Your task to perform on an android device: toggle translation in the chrome app Image 0: 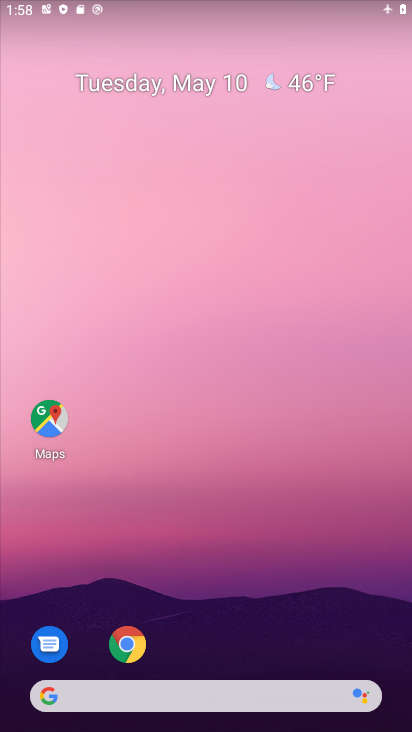
Step 0: drag from (237, 582) to (241, 58)
Your task to perform on an android device: toggle translation in the chrome app Image 1: 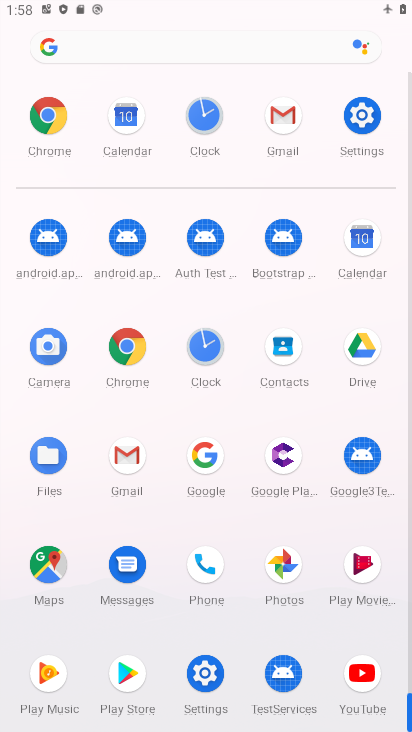
Step 1: click (132, 366)
Your task to perform on an android device: toggle translation in the chrome app Image 2: 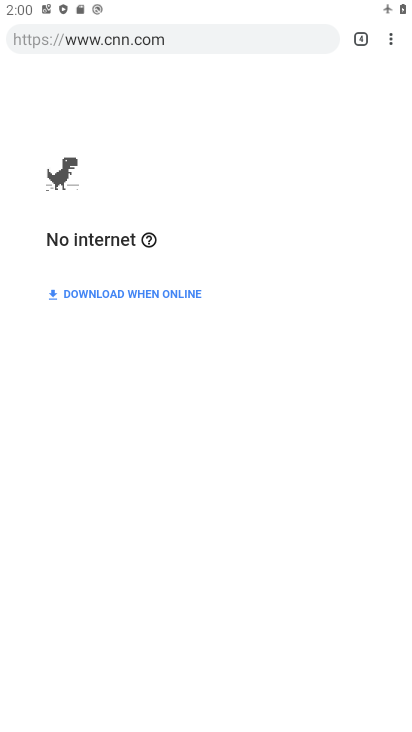
Step 2: click (389, 50)
Your task to perform on an android device: toggle translation in the chrome app Image 3: 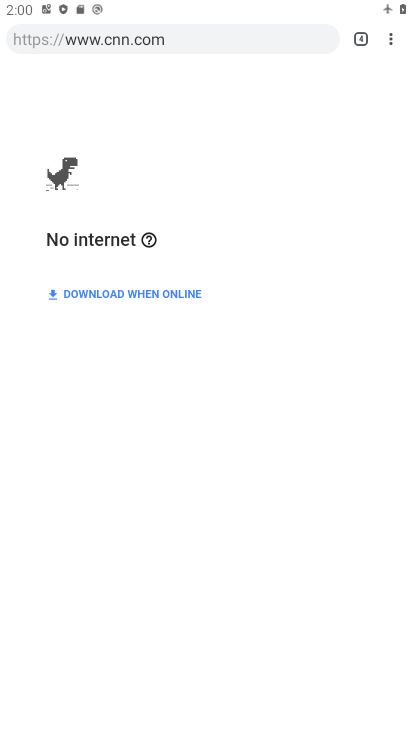
Step 3: click (391, 43)
Your task to perform on an android device: toggle translation in the chrome app Image 4: 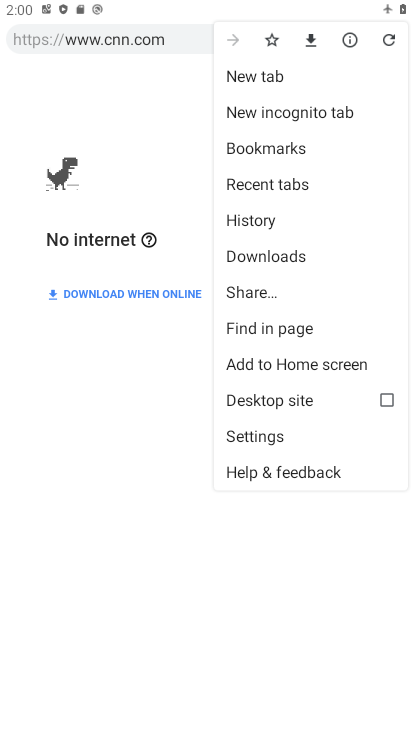
Step 4: click (300, 432)
Your task to perform on an android device: toggle translation in the chrome app Image 5: 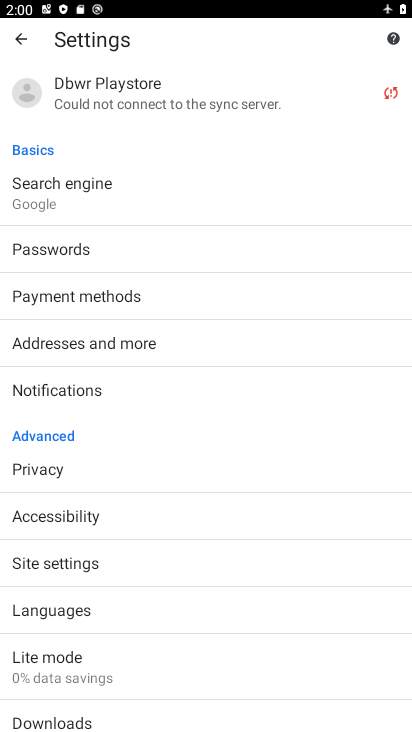
Step 5: click (76, 621)
Your task to perform on an android device: toggle translation in the chrome app Image 6: 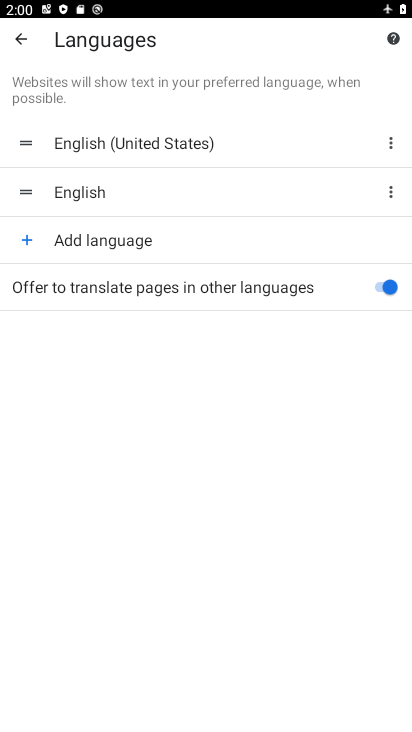
Step 6: task complete